Your task to perform on an android device: delete browsing data in the chrome app Image 0: 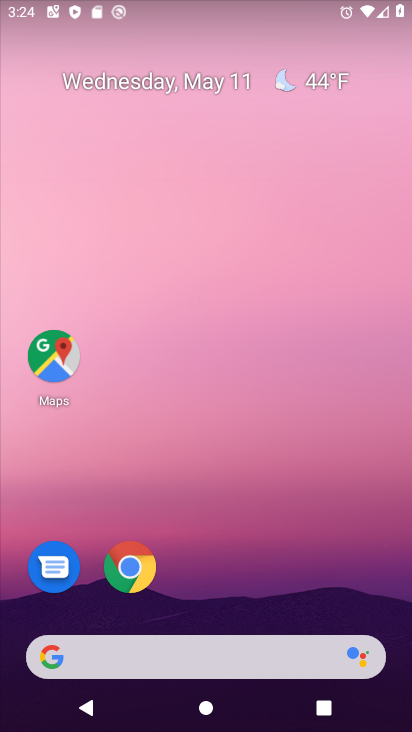
Step 0: drag from (261, 516) to (239, 10)
Your task to perform on an android device: delete browsing data in the chrome app Image 1: 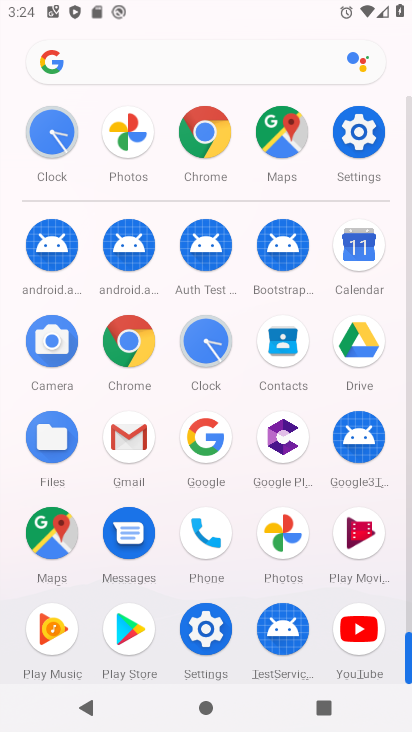
Step 1: click (203, 133)
Your task to perform on an android device: delete browsing data in the chrome app Image 2: 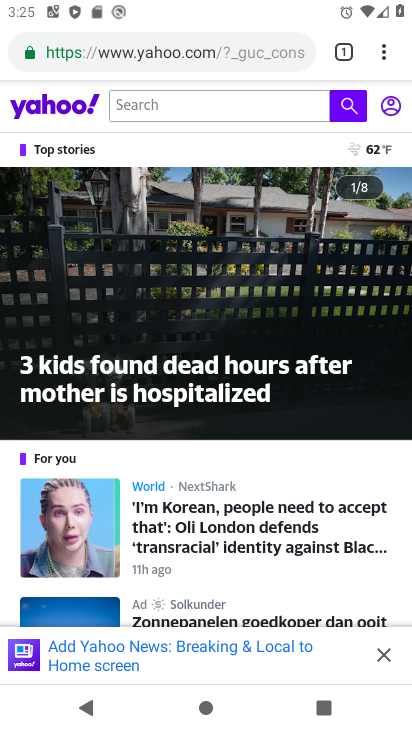
Step 2: drag from (379, 54) to (237, 349)
Your task to perform on an android device: delete browsing data in the chrome app Image 3: 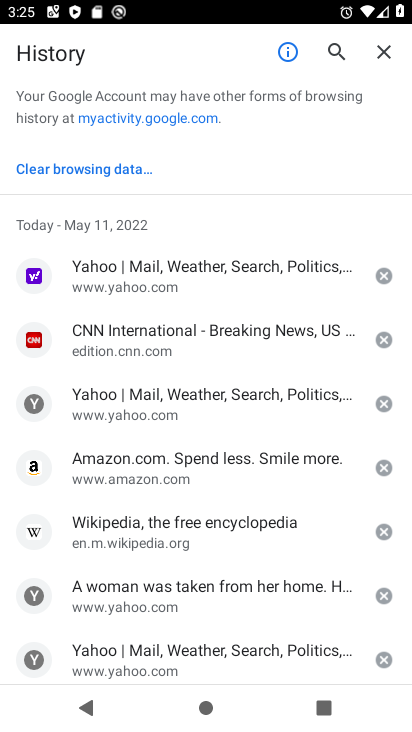
Step 3: drag from (229, 535) to (266, 612)
Your task to perform on an android device: delete browsing data in the chrome app Image 4: 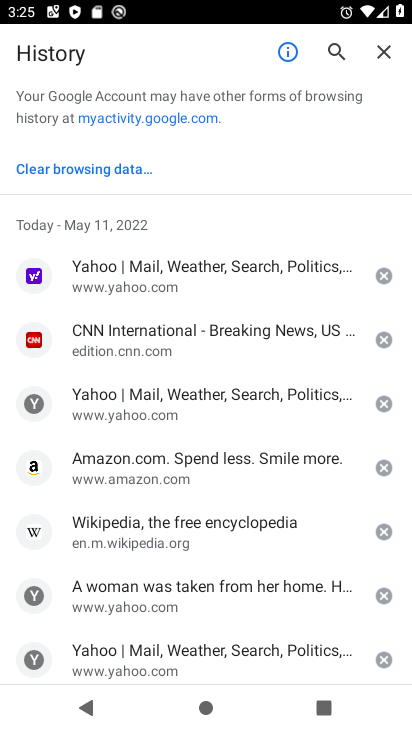
Step 4: click (60, 166)
Your task to perform on an android device: delete browsing data in the chrome app Image 5: 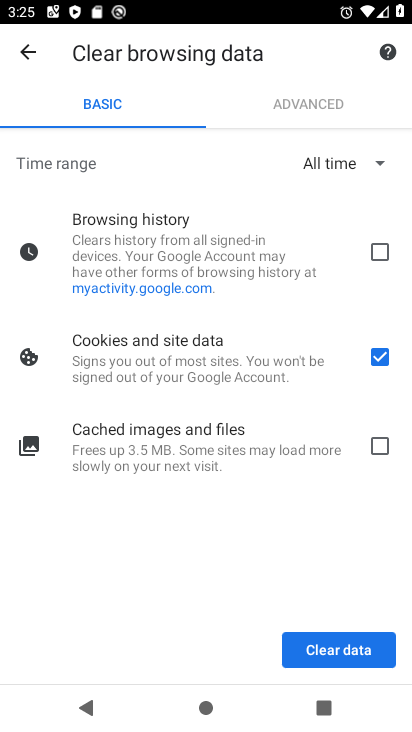
Step 5: click (375, 254)
Your task to perform on an android device: delete browsing data in the chrome app Image 6: 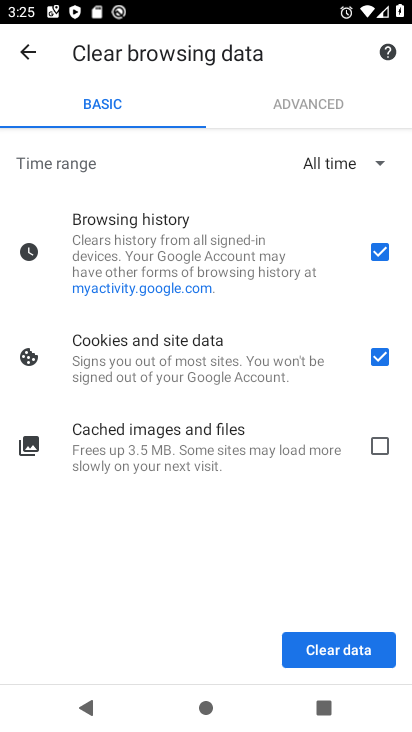
Step 6: click (382, 354)
Your task to perform on an android device: delete browsing data in the chrome app Image 7: 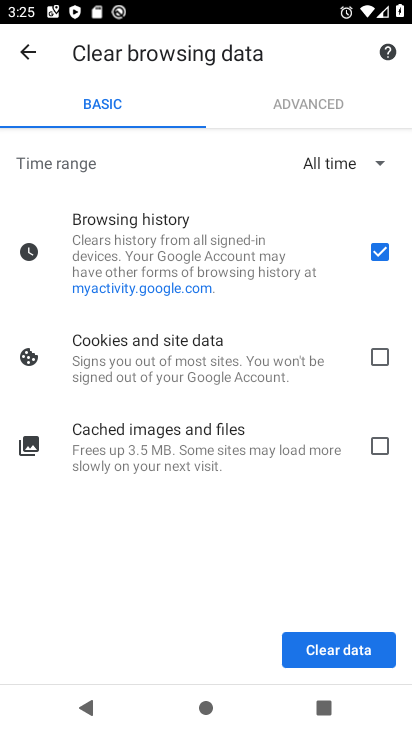
Step 7: click (322, 652)
Your task to perform on an android device: delete browsing data in the chrome app Image 8: 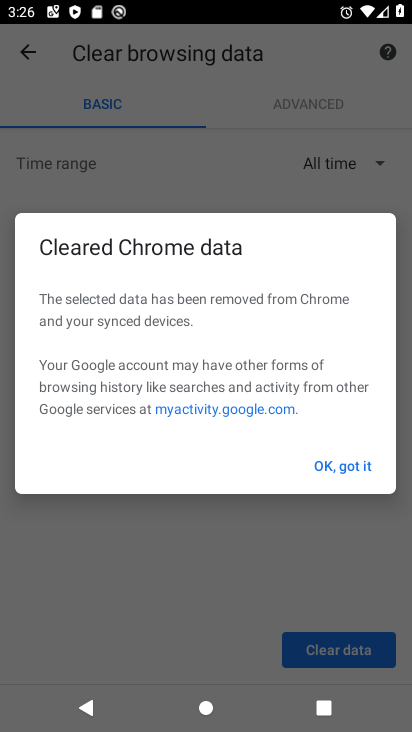
Step 8: click (350, 466)
Your task to perform on an android device: delete browsing data in the chrome app Image 9: 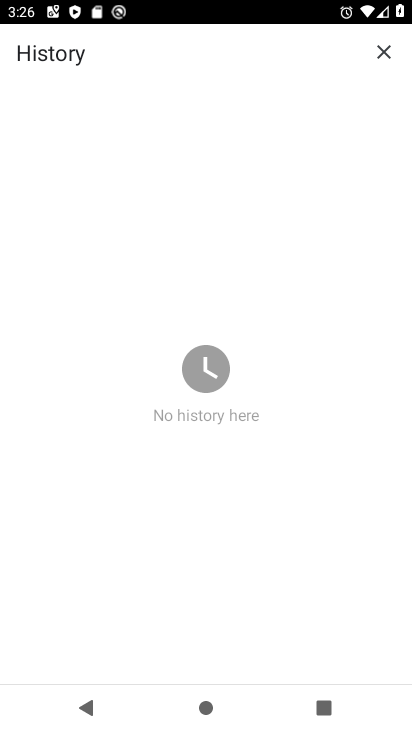
Step 9: task complete